Your task to perform on an android device: Go to Wikipedia Image 0: 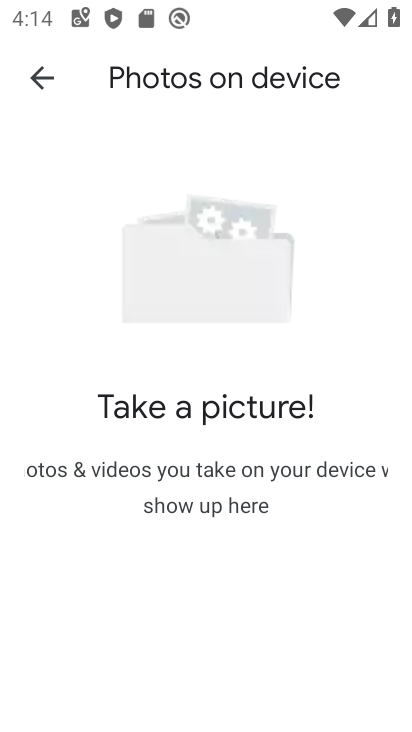
Step 0: press back button
Your task to perform on an android device: Go to Wikipedia Image 1: 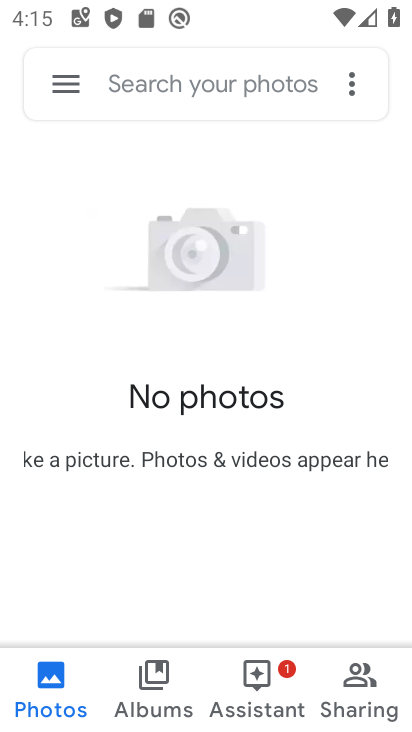
Step 1: press back button
Your task to perform on an android device: Go to Wikipedia Image 2: 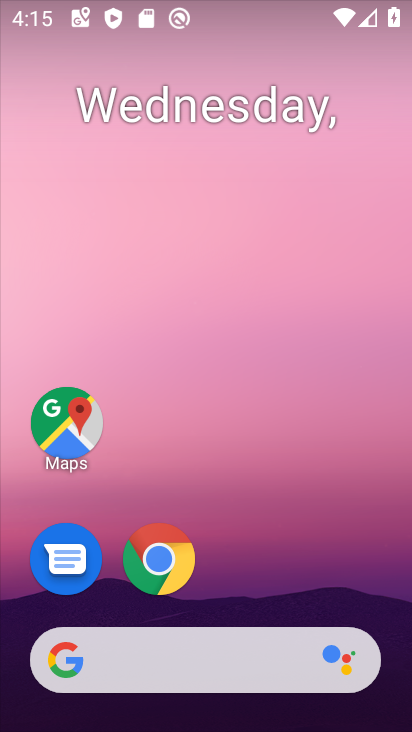
Step 2: click (168, 561)
Your task to perform on an android device: Go to Wikipedia Image 3: 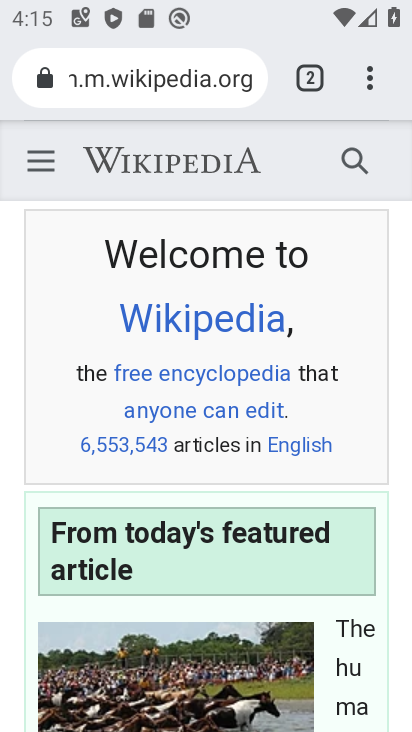
Step 3: task complete